Your task to perform on an android device: Go to Android settings Image 0: 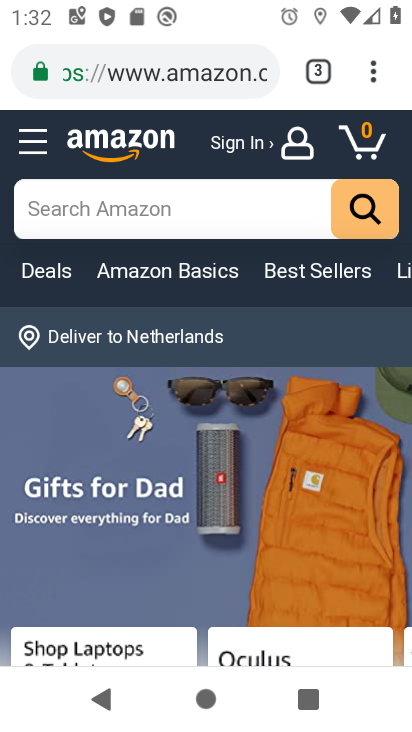
Step 0: press home button
Your task to perform on an android device: Go to Android settings Image 1: 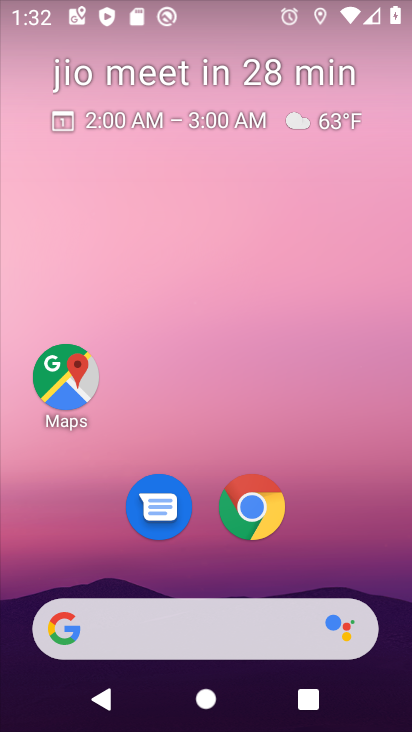
Step 1: drag from (326, 515) to (296, 4)
Your task to perform on an android device: Go to Android settings Image 2: 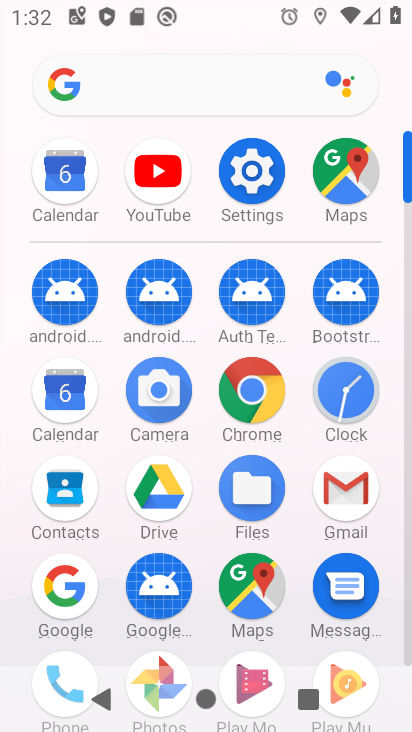
Step 2: click (251, 178)
Your task to perform on an android device: Go to Android settings Image 3: 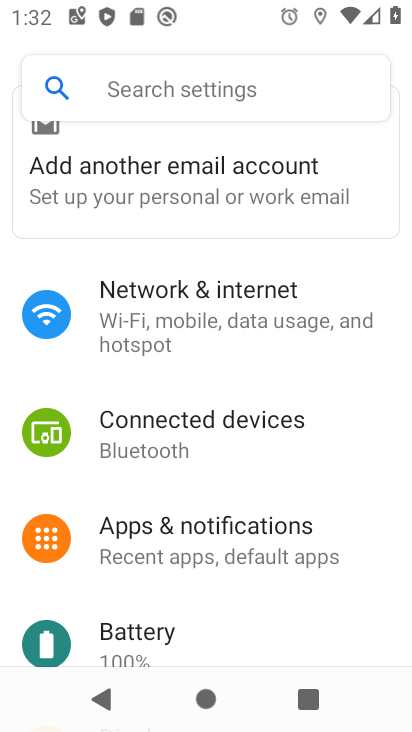
Step 3: drag from (228, 611) to (267, 4)
Your task to perform on an android device: Go to Android settings Image 4: 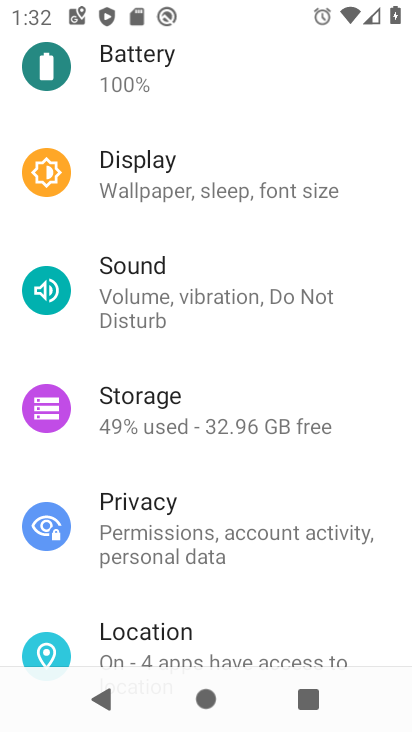
Step 4: drag from (237, 572) to (277, 12)
Your task to perform on an android device: Go to Android settings Image 5: 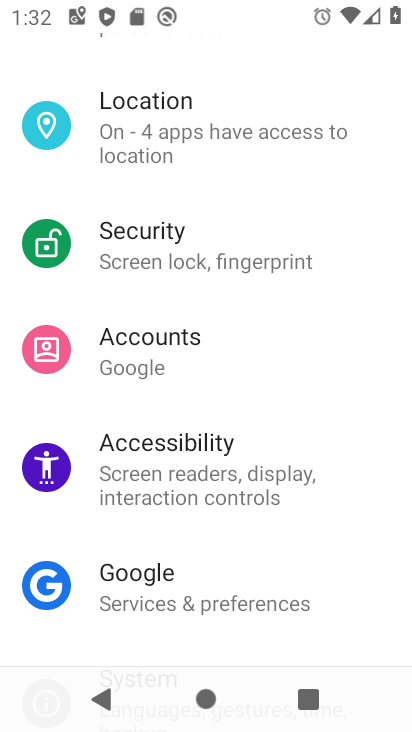
Step 5: drag from (253, 362) to (260, 3)
Your task to perform on an android device: Go to Android settings Image 6: 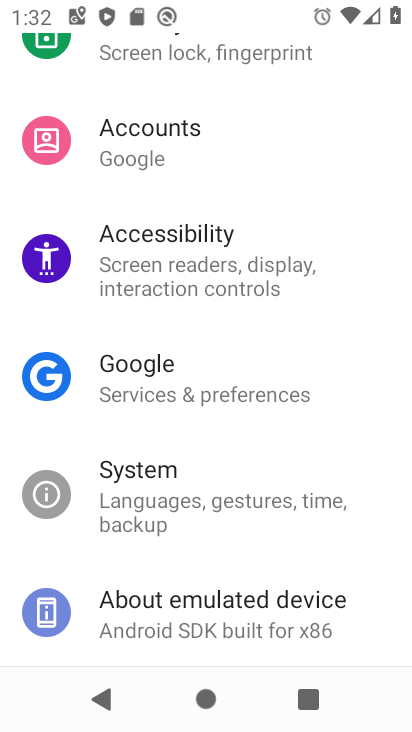
Step 6: click (210, 622)
Your task to perform on an android device: Go to Android settings Image 7: 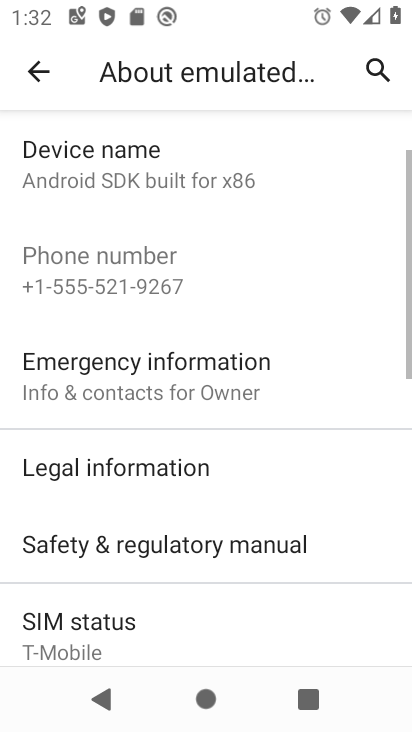
Step 7: task complete